Your task to perform on an android device: set an alarm Image 0: 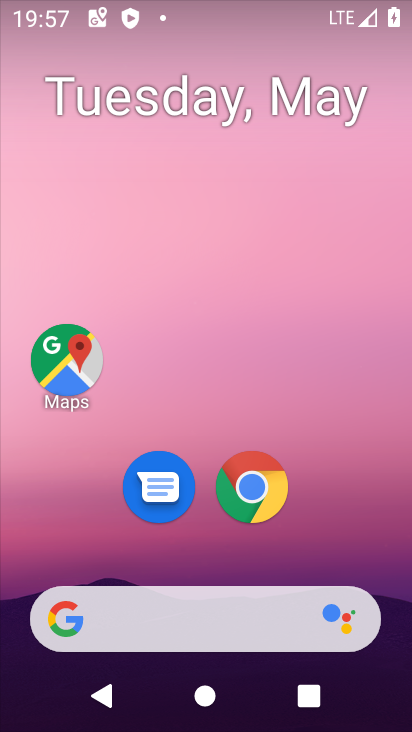
Step 0: drag from (362, 493) to (267, 47)
Your task to perform on an android device: set an alarm Image 1: 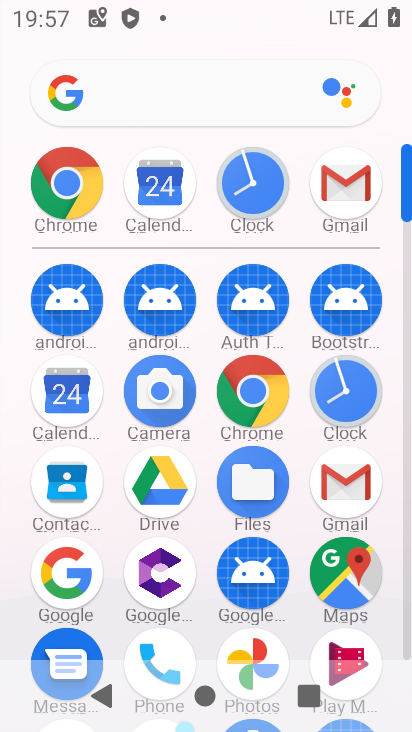
Step 1: click (245, 177)
Your task to perform on an android device: set an alarm Image 2: 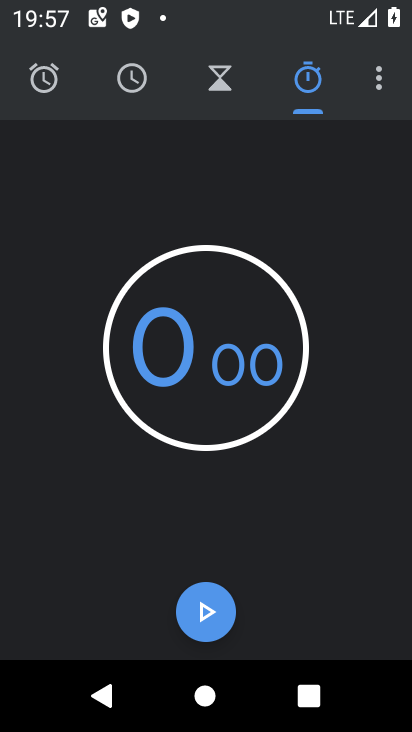
Step 2: click (37, 76)
Your task to perform on an android device: set an alarm Image 3: 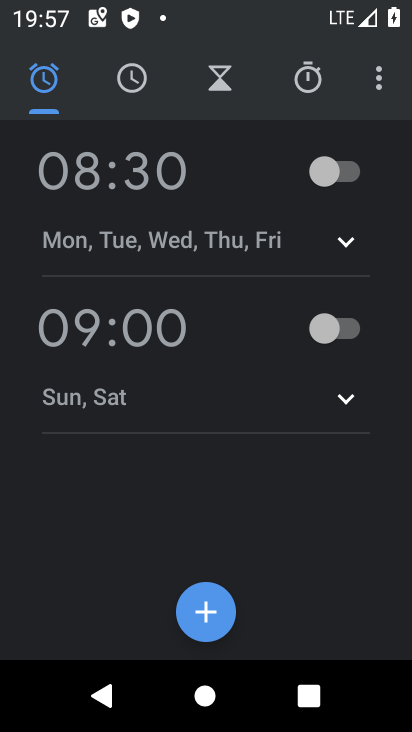
Step 3: click (206, 612)
Your task to perform on an android device: set an alarm Image 4: 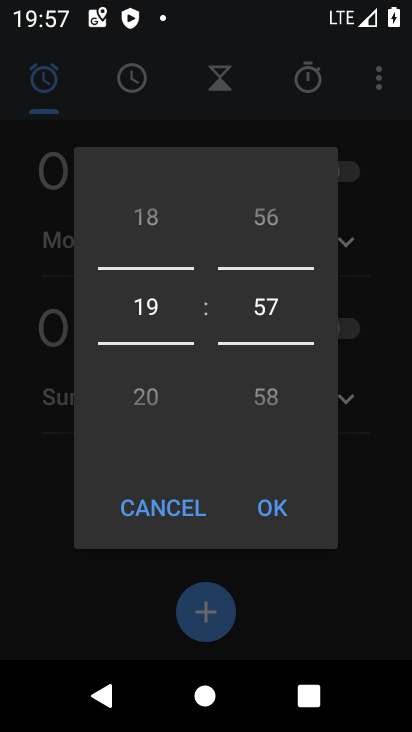
Step 4: click (274, 508)
Your task to perform on an android device: set an alarm Image 5: 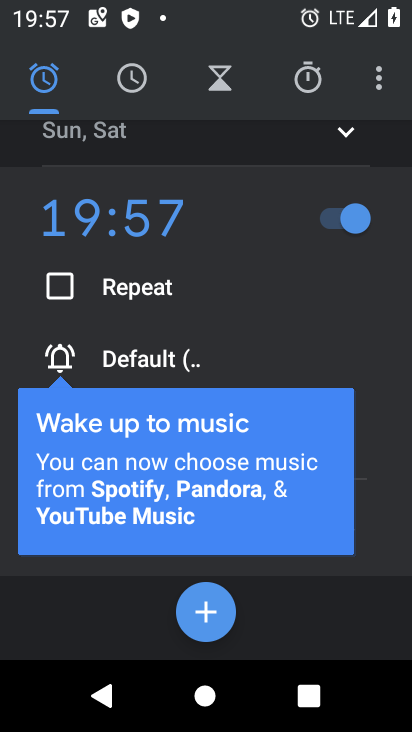
Step 5: task complete